Your task to perform on an android device: turn on javascript in the chrome app Image 0: 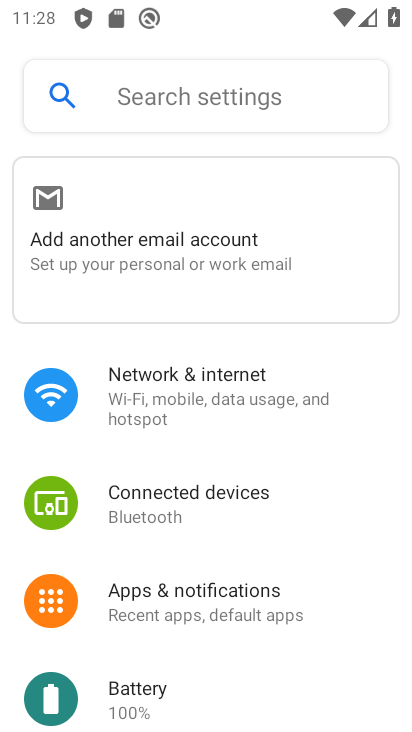
Step 0: press home button
Your task to perform on an android device: turn on javascript in the chrome app Image 1: 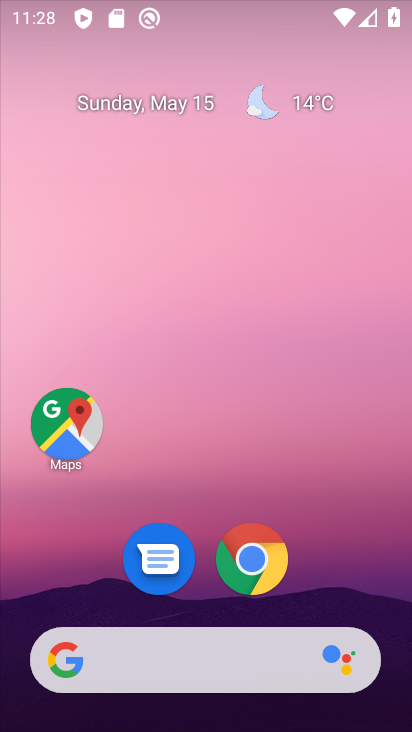
Step 1: drag from (379, 398) to (388, 118)
Your task to perform on an android device: turn on javascript in the chrome app Image 2: 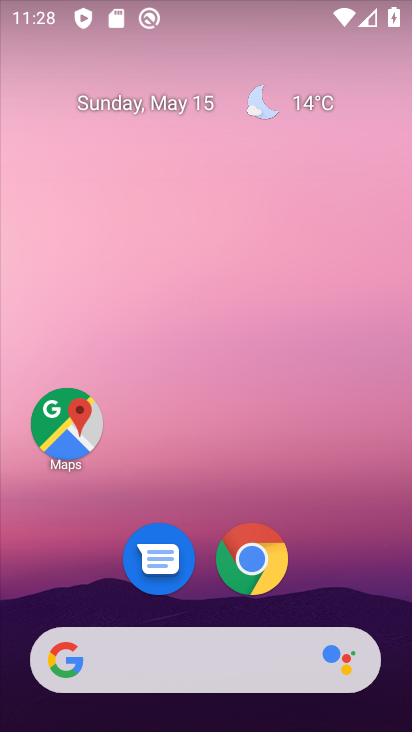
Step 2: drag from (316, 574) to (355, 167)
Your task to perform on an android device: turn on javascript in the chrome app Image 3: 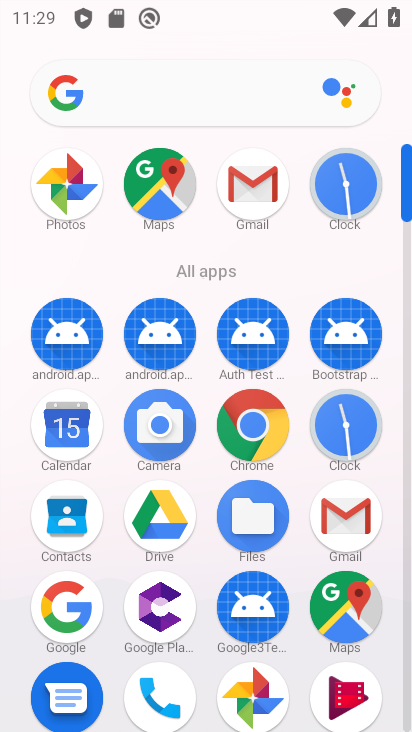
Step 3: drag from (216, 527) to (230, 320)
Your task to perform on an android device: turn on javascript in the chrome app Image 4: 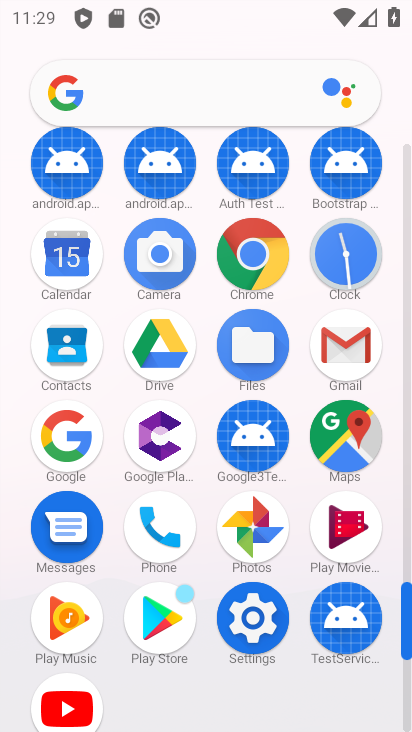
Step 4: click (246, 270)
Your task to perform on an android device: turn on javascript in the chrome app Image 5: 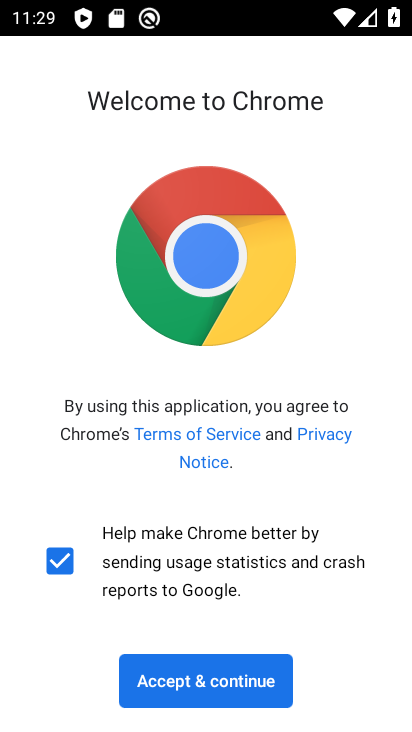
Step 5: click (182, 681)
Your task to perform on an android device: turn on javascript in the chrome app Image 6: 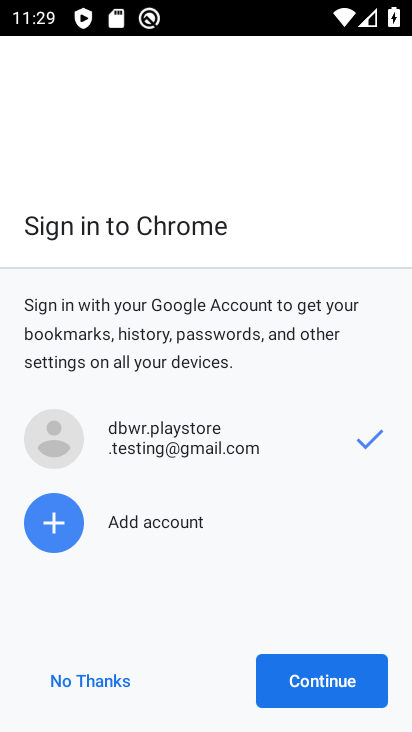
Step 6: click (283, 675)
Your task to perform on an android device: turn on javascript in the chrome app Image 7: 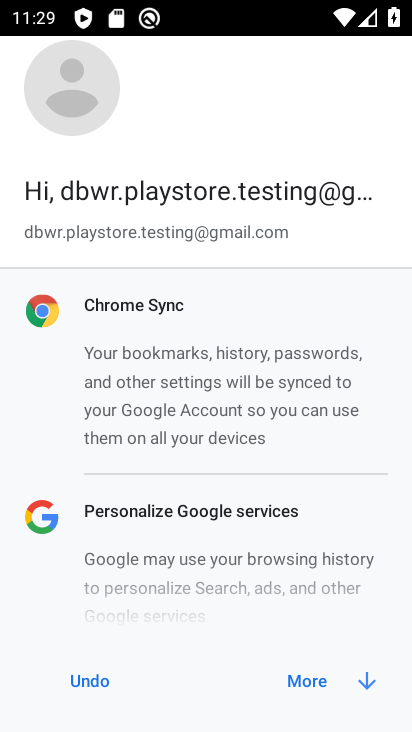
Step 7: click (319, 679)
Your task to perform on an android device: turn on javascript in the chrome app Image 8: 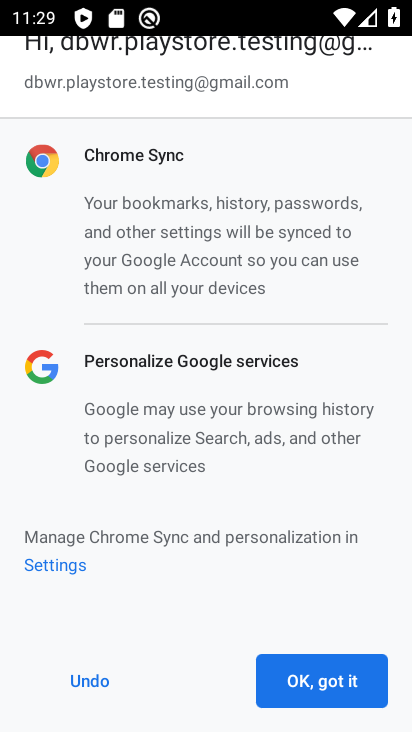
Step 8: click (320, 679)
Your task to perform on an android device: turn on javascript in the chrome app Image 9: 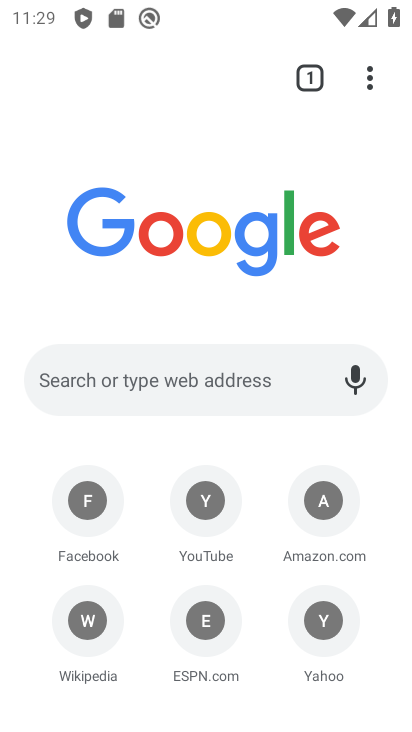
Step 9: drag from (376, 86) to (218, 617)
Your task to perform on an android device: turn on javascript in the chrome app Image 10: 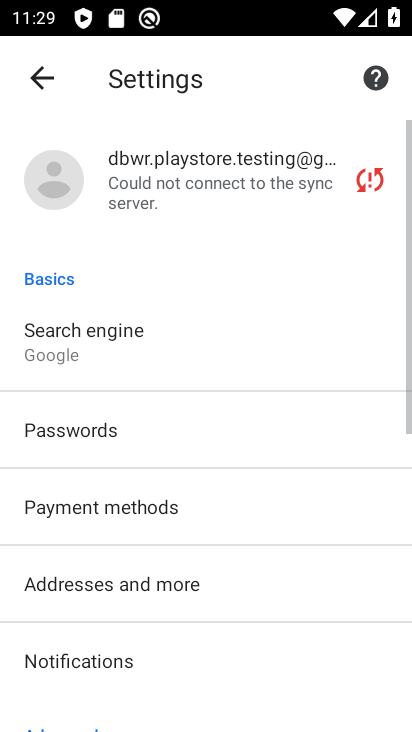
Step 10: drag from (267, 625) to (274, 287)
Your task to perform on an android device: turn on javascript in the chrome app Image 11: 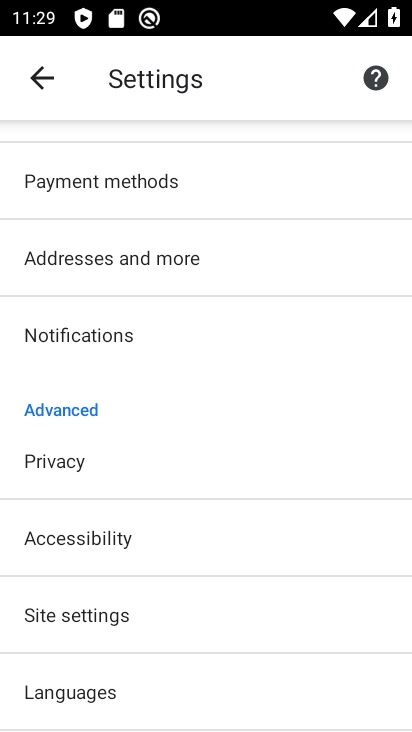
Step 11: click (183, 604)
Your task to perform on an android device: turn on javascript in the chrome app Image 12: 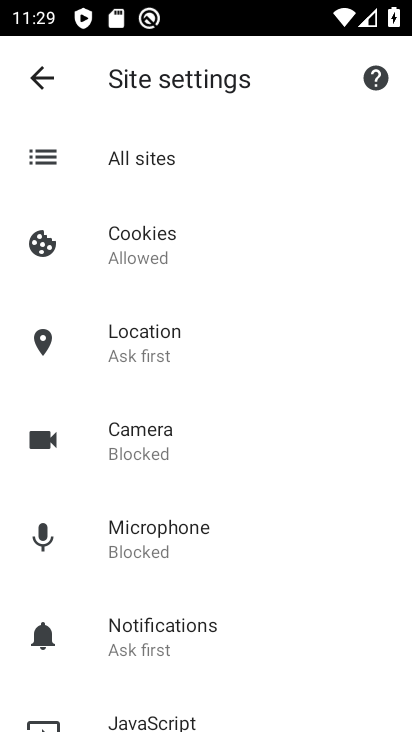
Step 12: drag from (250, 649) to (274, 369)
Your task to perform on an android device: turn on javascript in the chrome app Image 13: 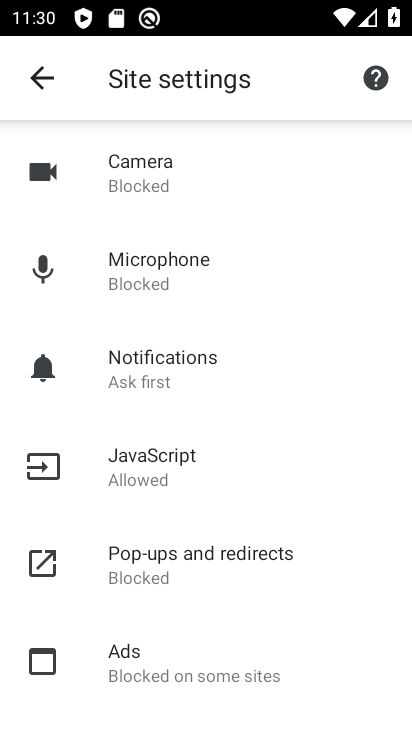
Step 13: click (188, 463)
Your task to perform on an android device: turn on javascript in the chrome app Image 14: 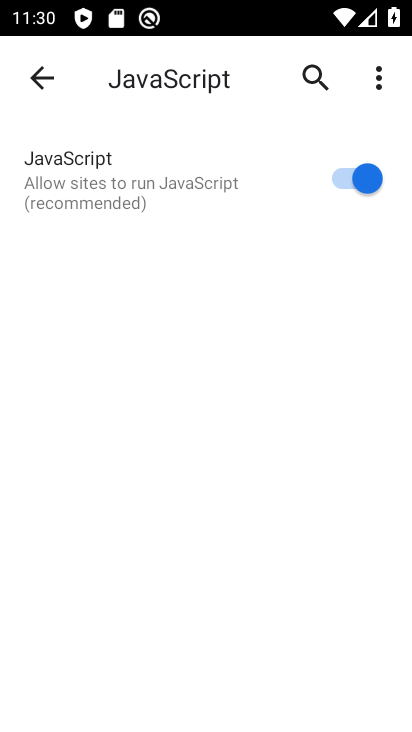
Step 14: task complete